Your task to perform on an android device: turn off location Image 0: 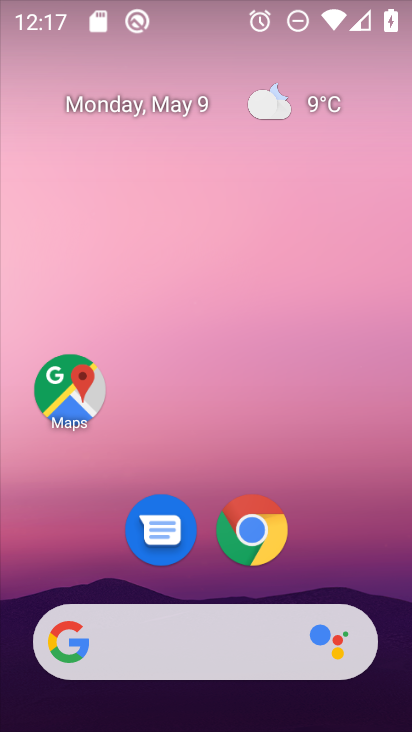
Step 0: drag from (237, 591) to (218, 89)
Your task to perform on an android device: turn off location Image 1: 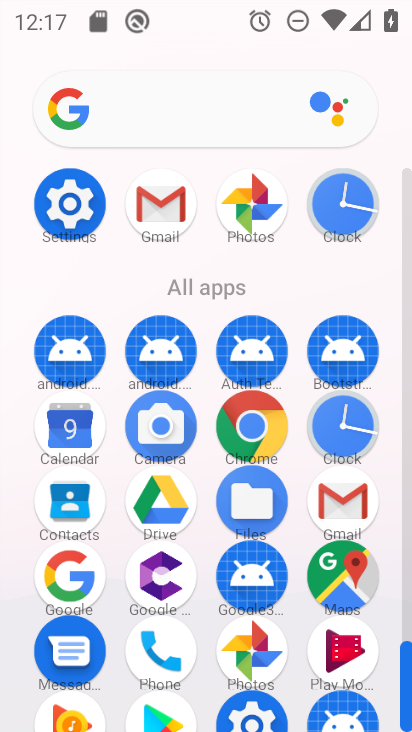
Step 1: click (60, 199)
Your task to perform on an android device: turn off location Image 2: 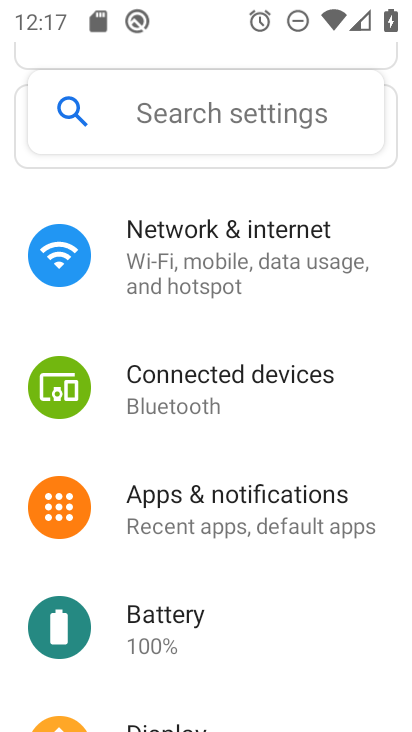
Step 2: drag from (70, 670) to (112, 163)
Your task to perform on an android device: turn off location Image 3: 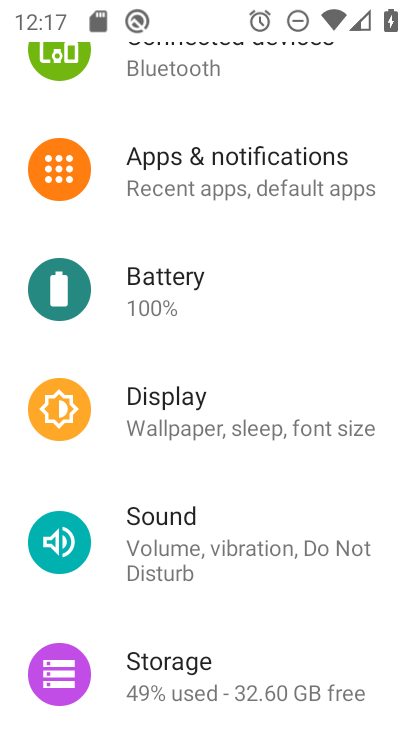
Step 3: drag from (105, 606) to (191, 144)
Your task to perform on an android device: turn off location Image 4: 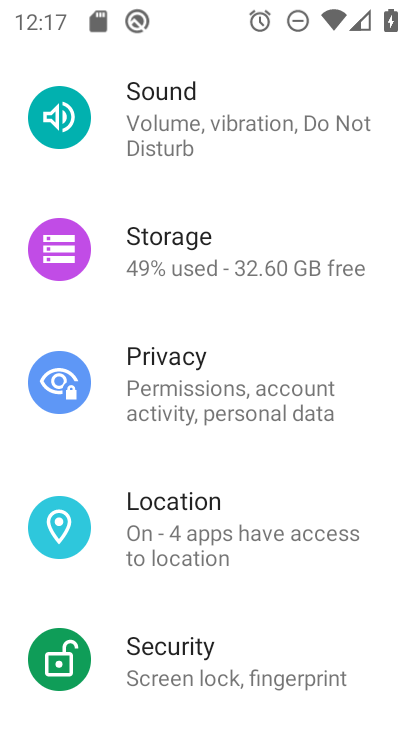
Step 4: click (117, 502)
Your task to perform on an android device: turn off location Image 5: 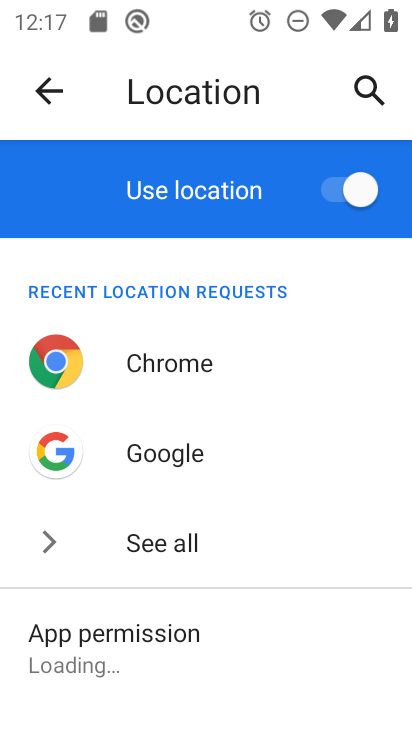
Step 5: click (342, 196)
Your task to perform on an android device: turn off location Image 6: 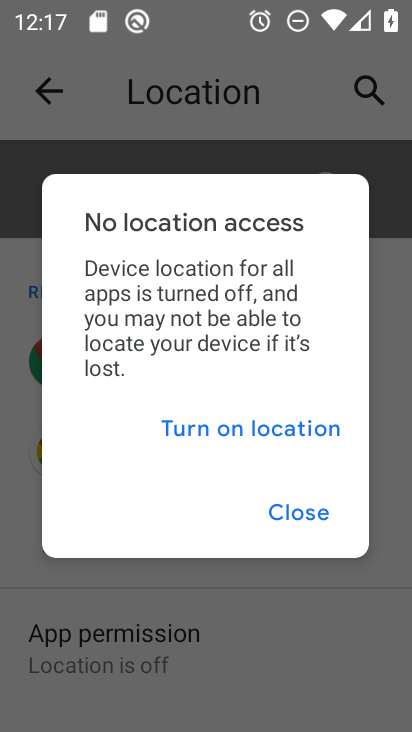
Step 6: task complete